Your task to perform on an android device: open app "VLC for Android" Image 0: 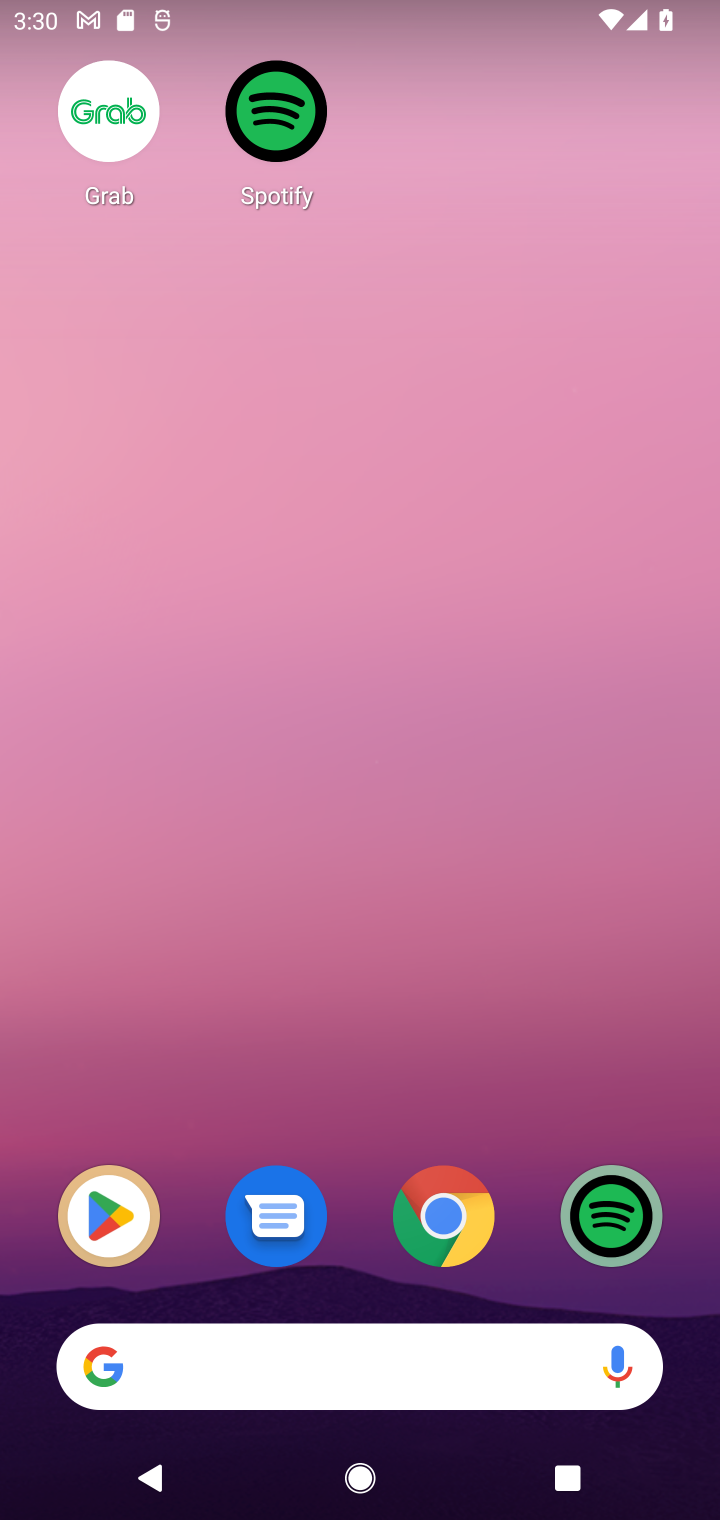
Step 0: drag from (438, 1373) to (458, 55)
Your task to perform on an android device: open app "VLC for Android" Image 1: 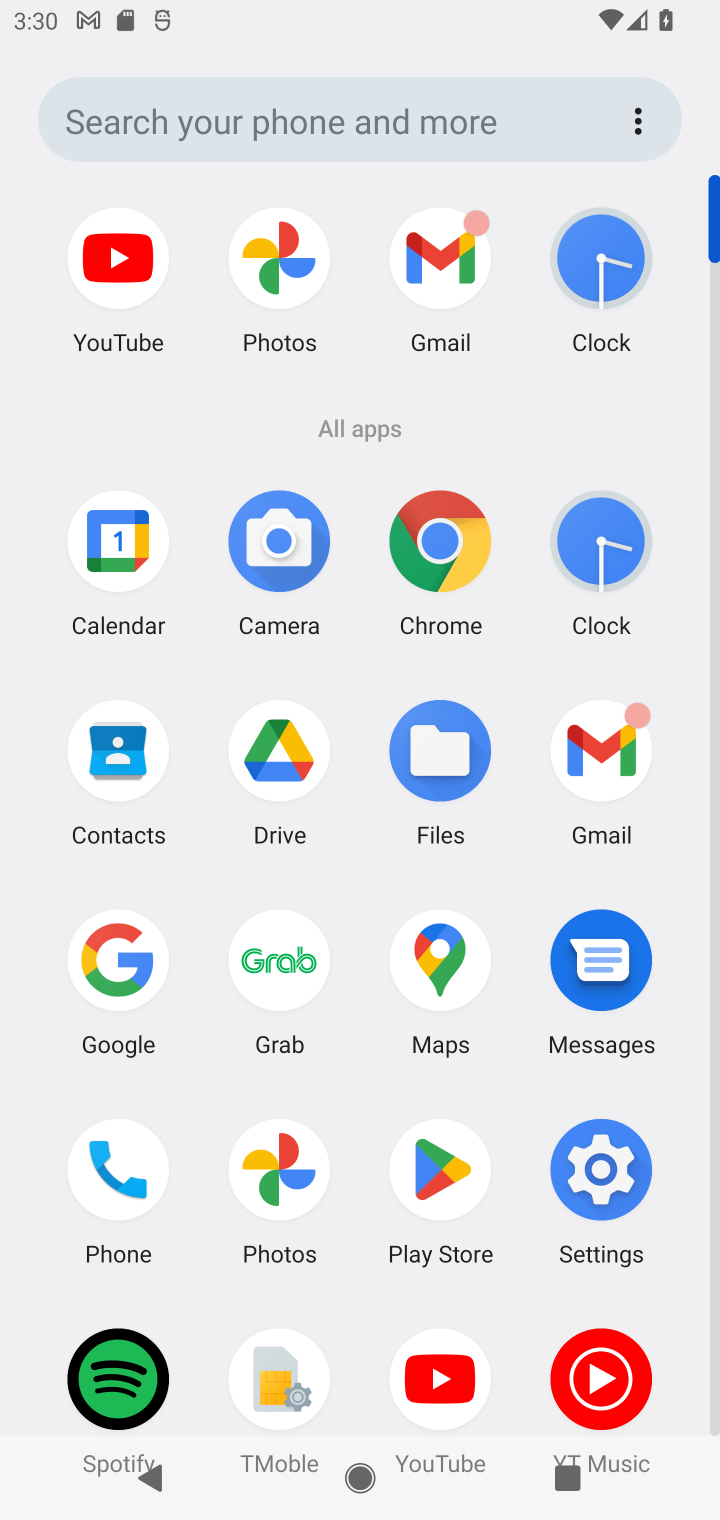
Step 1: click (456, 1169)
Your task to perform on an android device: open app "VLC for Android" Image 2: 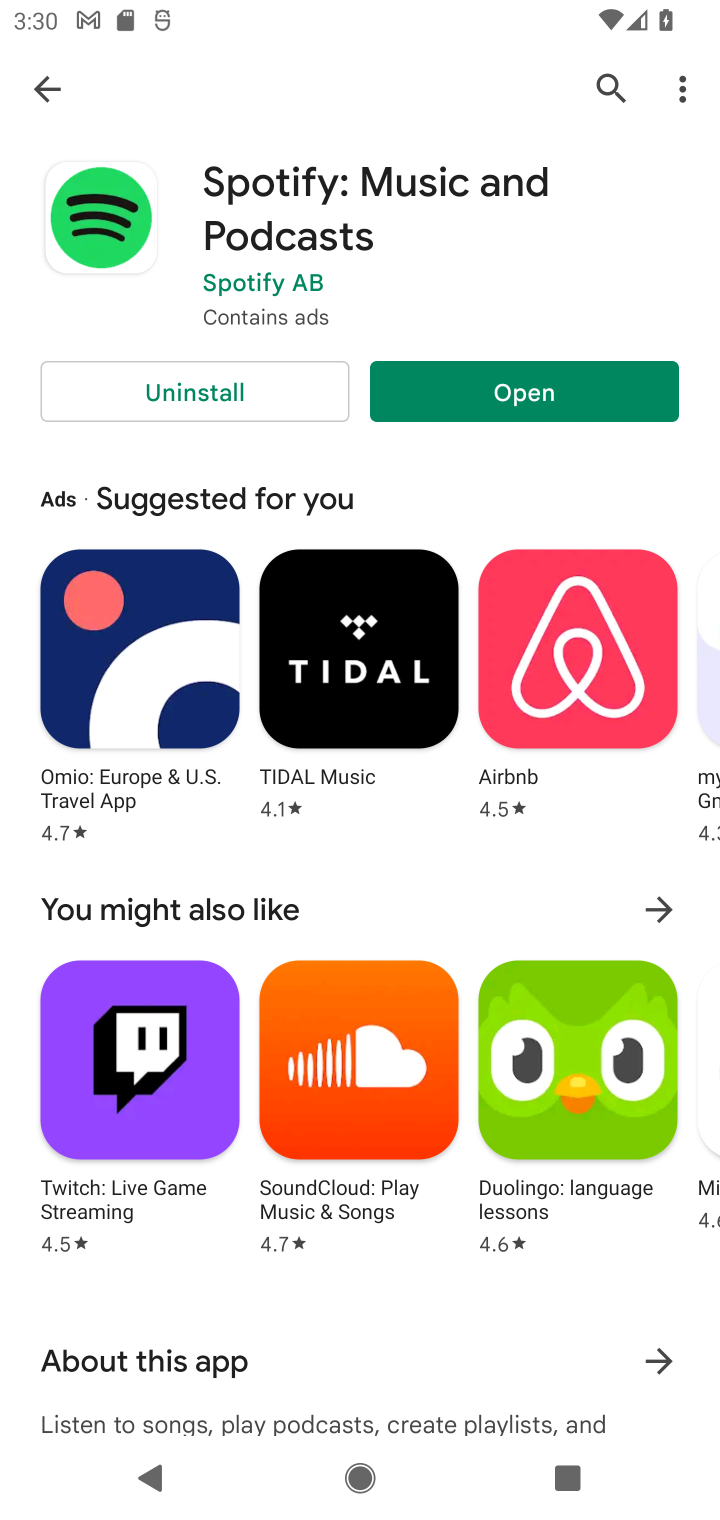
Step 2: click (598, 85)
Your task to perform on an android device: open app "VLC for Android" Image 3: 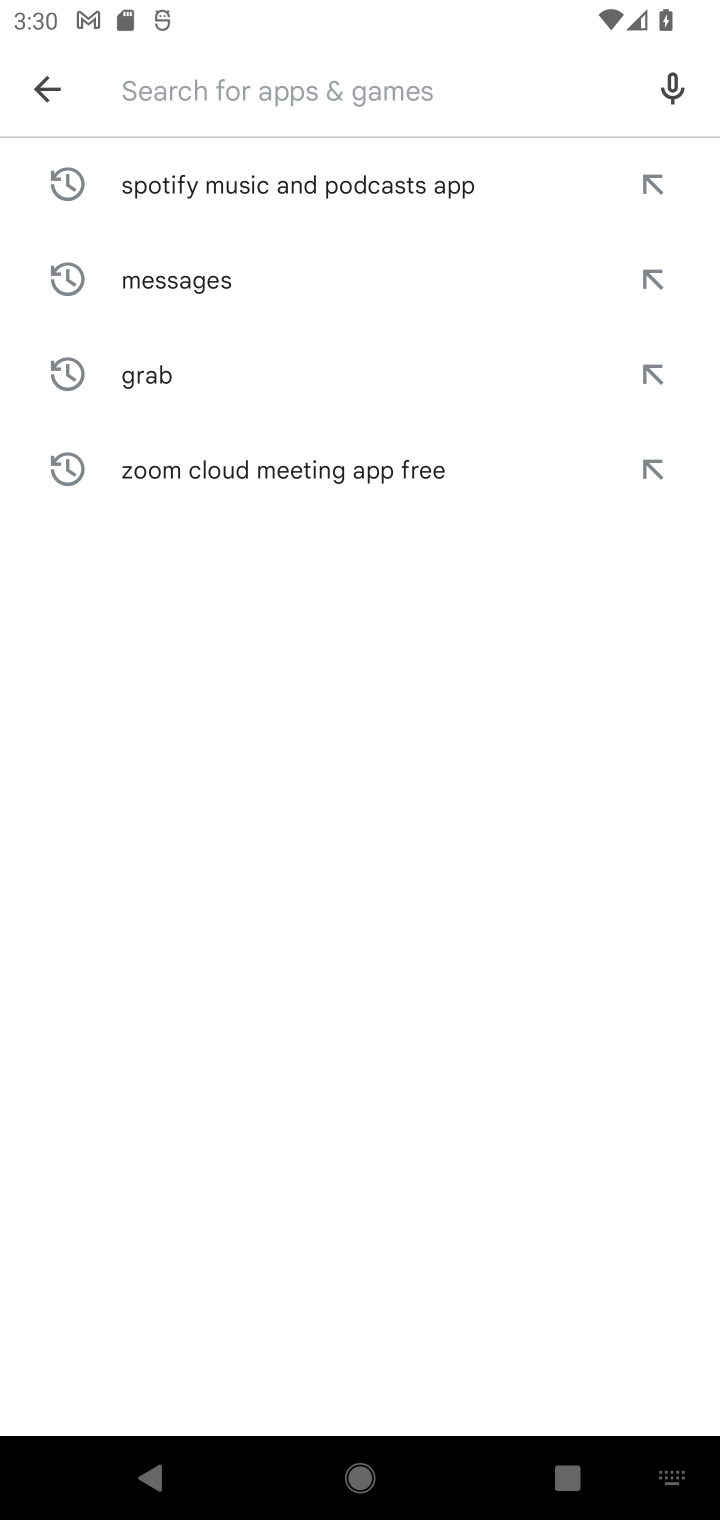
Step 3: type " vlc for android"
Your task to perform on an android device: open app "VLC for Android" Image 4: 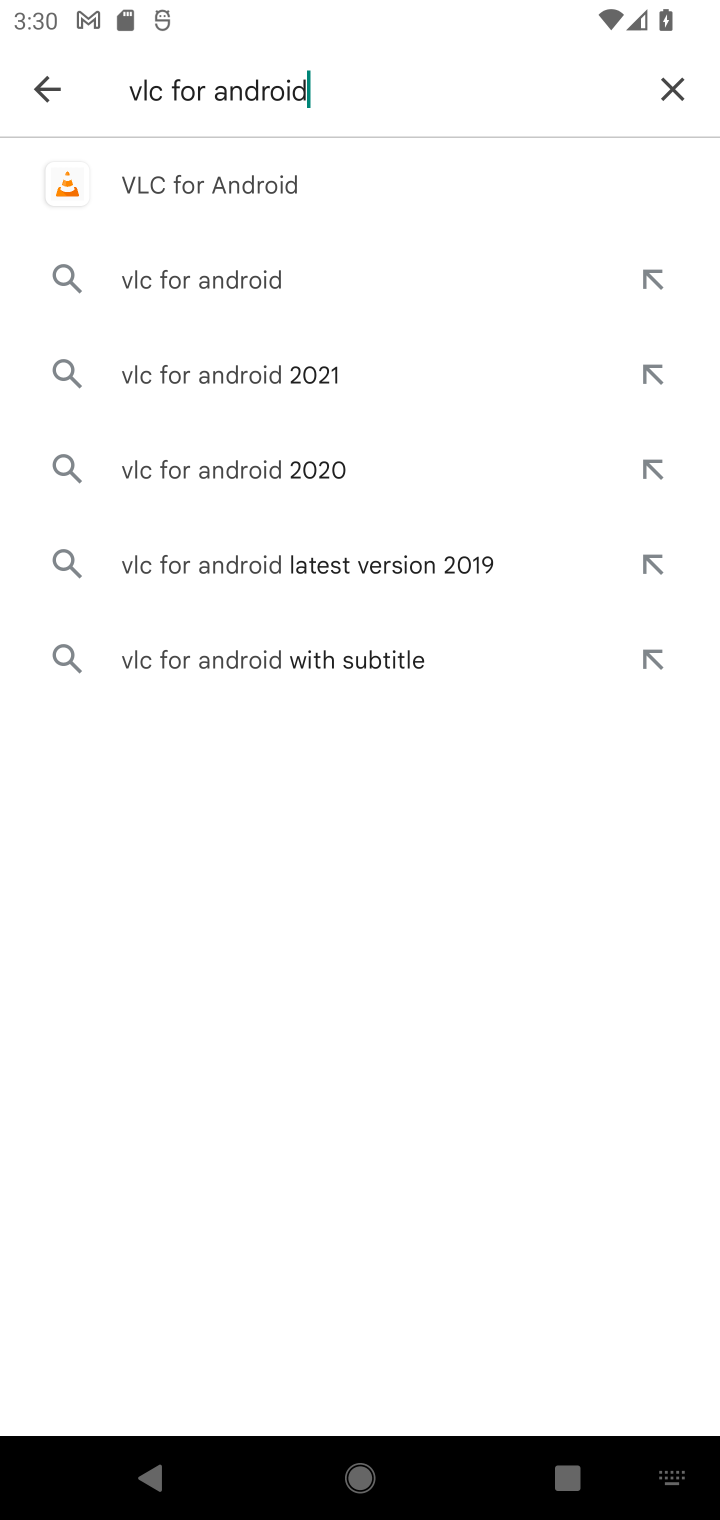
Step 4: click (172, 187)
Your task to perform on an android device: open app "VLC for Android" Image 5: 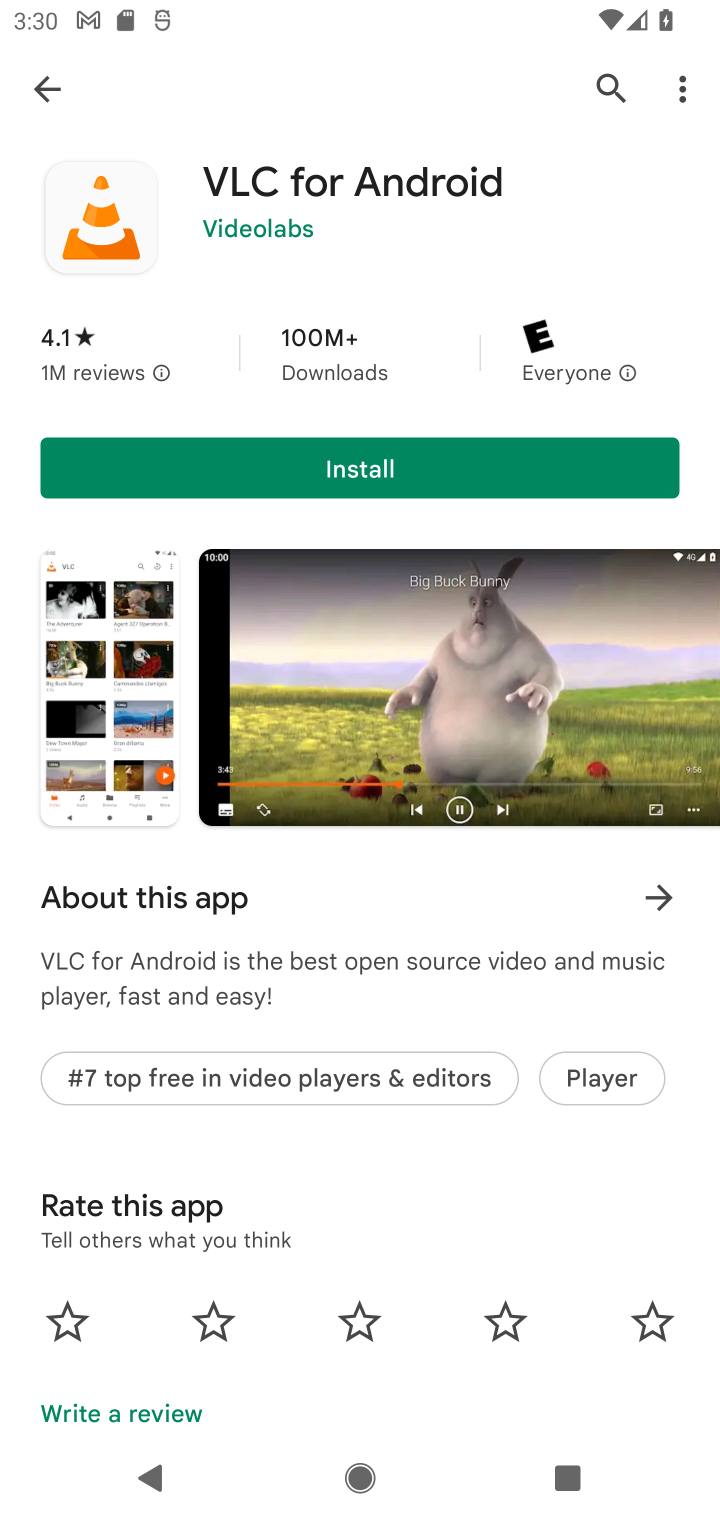
Step 5: task complete